Your task to perform on an android device: turn off wifi Image 0: 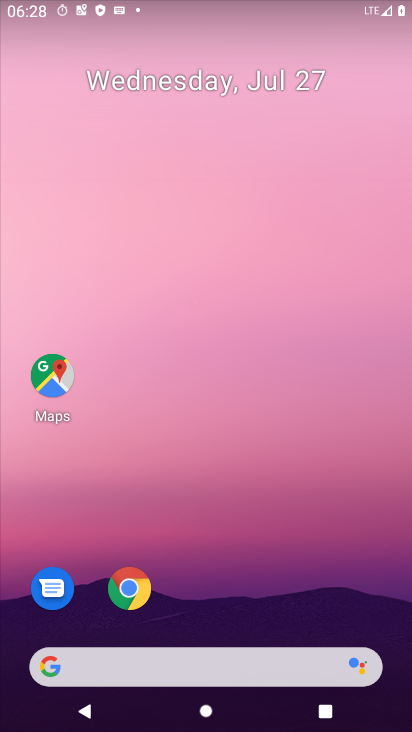
Step 0: drag from (175, 650) to (227, 7)
Your task to perform on an android device: turn off wifi Image 1: 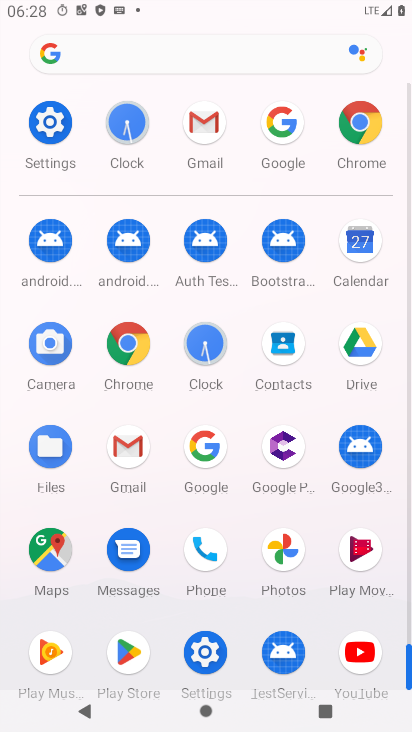
Step 1: click (62, 116)
Your task to perform on an android device: turn off wifi Image 2: 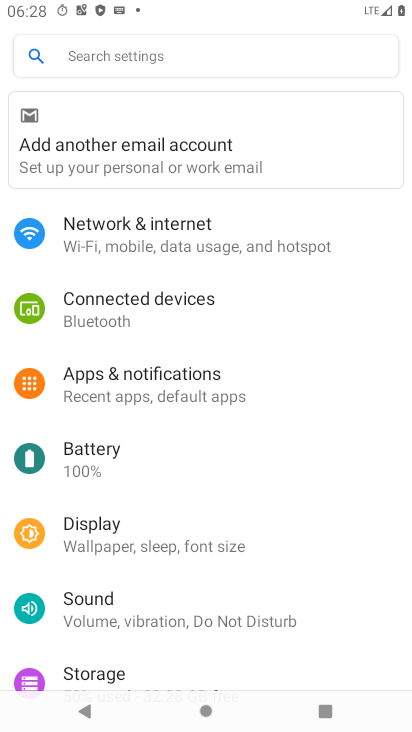
Step 2: click (111, 223)
Your task to perform on an android device: turn off wifi Image 3: 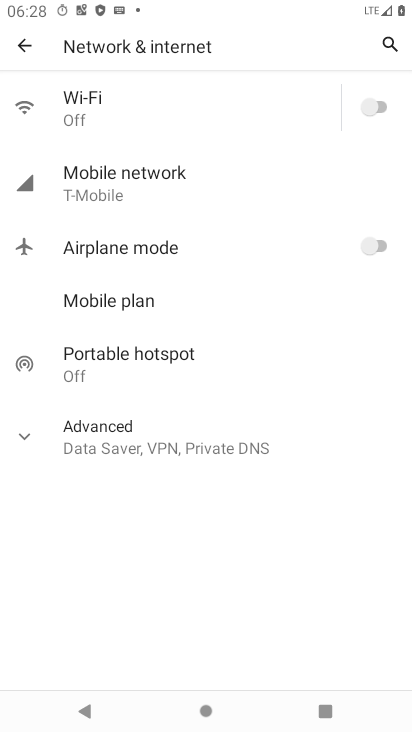
Step 3: task complete